Your task to perform on an android device: open a new tab in the chrome app Image 0: 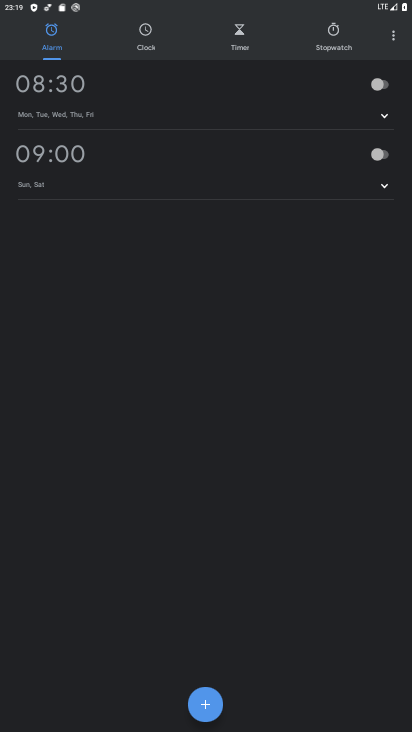
Step 0: press home button
Your task to perform on an android device: open a new tab in the chrome app Image 1: 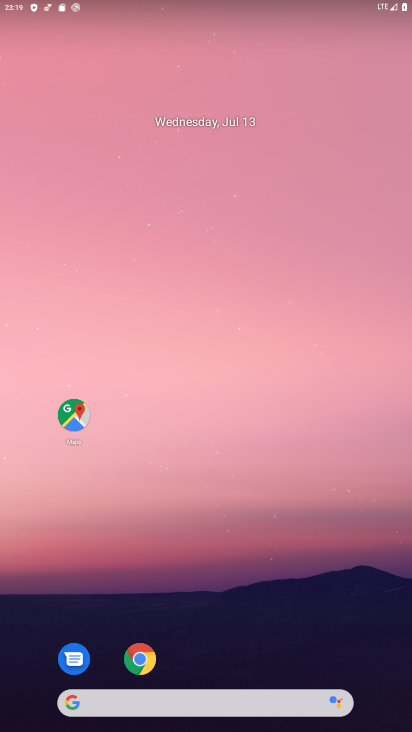
Step 1: click (141, 659)
Your task to perform on an android device: open a new tab in the chrome app Image 2: 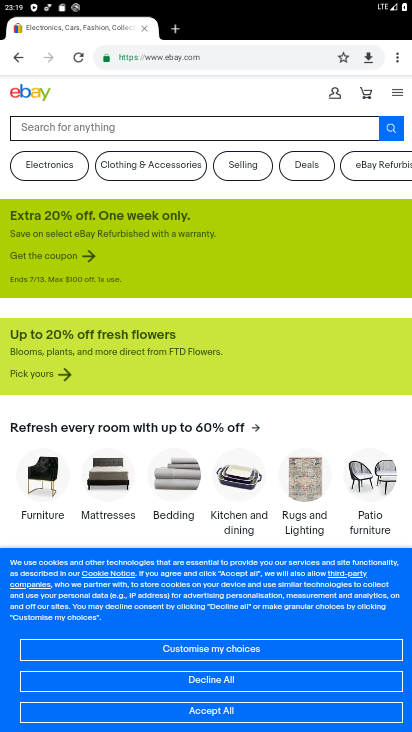
Step 2: click (397, 59)
Your task to perform on an android device: open a new tab in the chrome app Image 3: 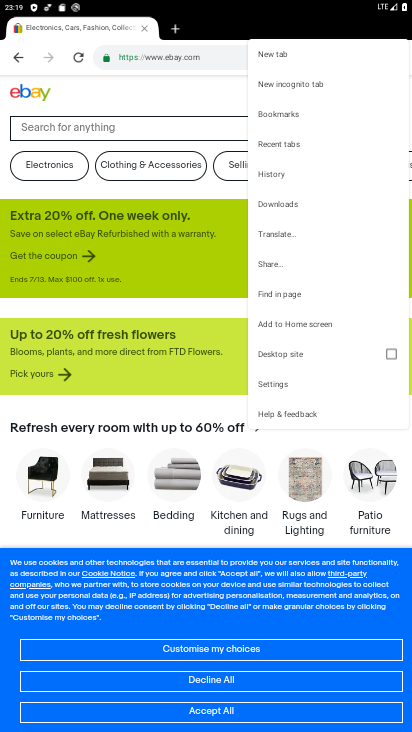
Step 3: click (269, 53)
Your task to perform on an android device: open a new tab in the chrome app Image 4: 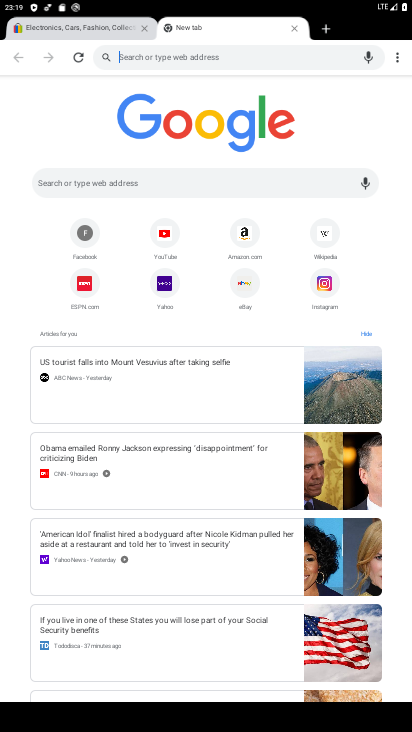
Step 4: task complete